Your task to perform on an android device: turn on the 24-hour format for clock Image 0: 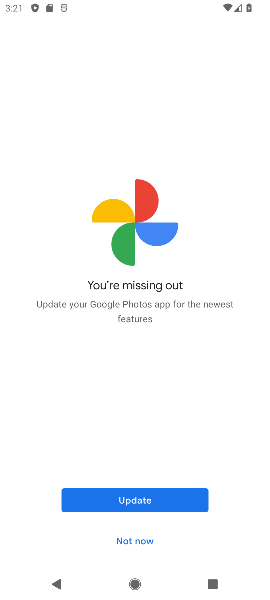
Step 0: press back button
Your task to perform on an android device: turn on the 24-hour format for clock Image 1: 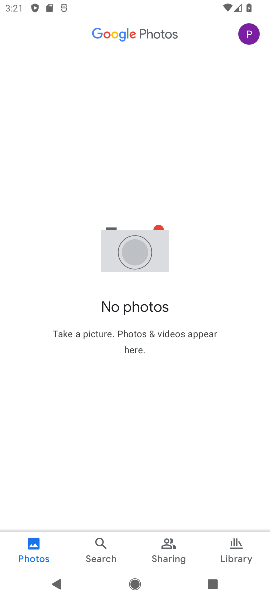
Step 1: press back button
Your task to perform on an android device: turn on the 24-hour format for clock Image 2: 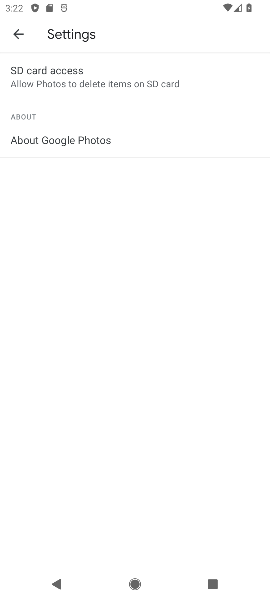
Step 2: press home button
Your task to perform on an android device: turn on the 24-hour format for clock Image 3: 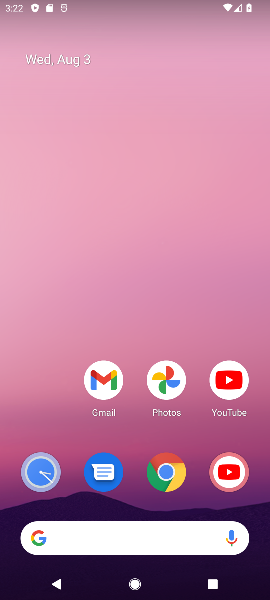
Step 3: drag from (240, 530) to (160, 17)
Your task to perform on an android device: turn on the 24-hour format for clock Image 4: 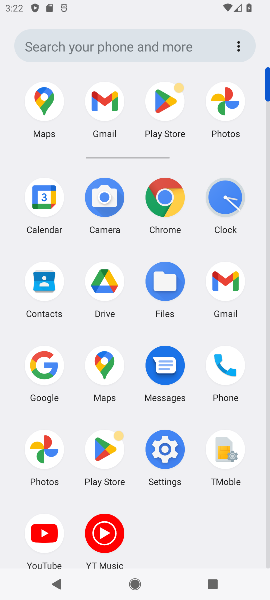
Step 4: click (225, 200)
Your task to perform on an android device: turn on the 24-hour format for clock Image 5: 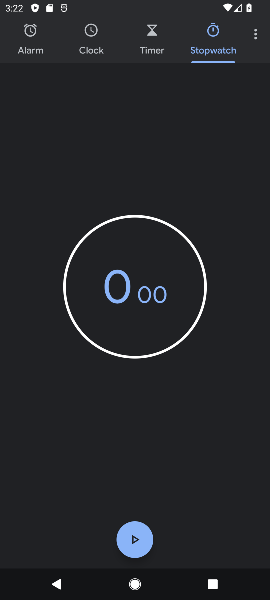
Step 5: click (255, 31)
Your task to perform on an android device: turn on the 24-hour format for clock Image 6: 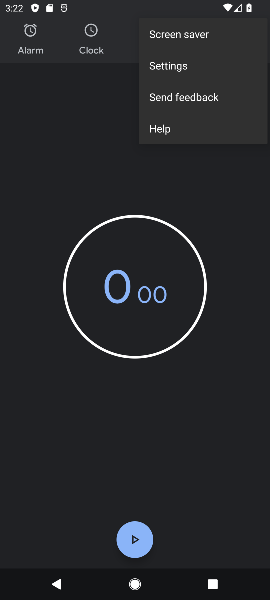
Step 6: click (171, 63)
Your task to perform on an android device: turn on the 24-hour format for clock Image 7: 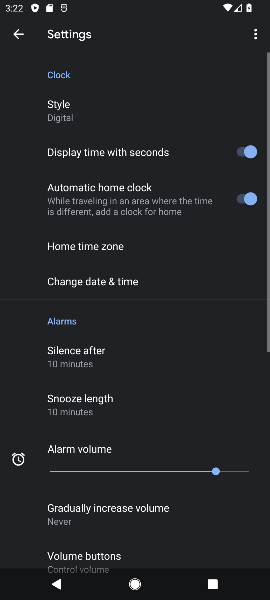
Step 7: click (125, 286)
Your task to perform on an android device: turn on the 24-hour format for clock Image 8: 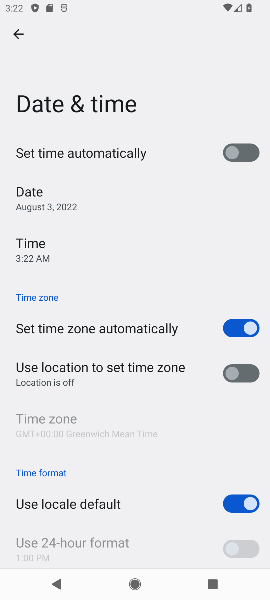
Step 8: task complete